Your task to perform on an android device: check the backup settings in the google photos Image 0: 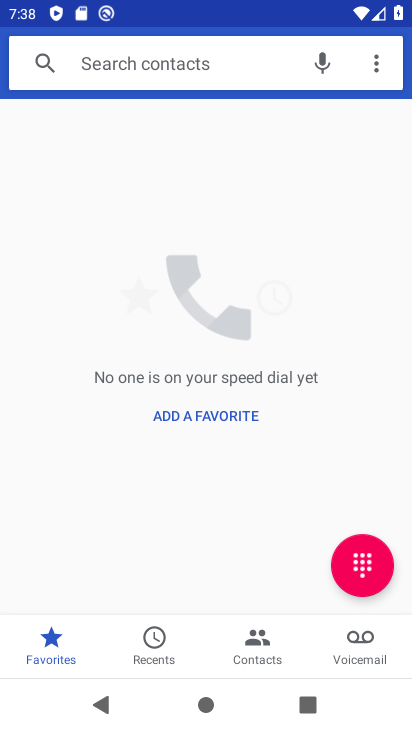
Step 0: press home button
Your task to perform on an android device: check the backup settings in the google photos Image 1: 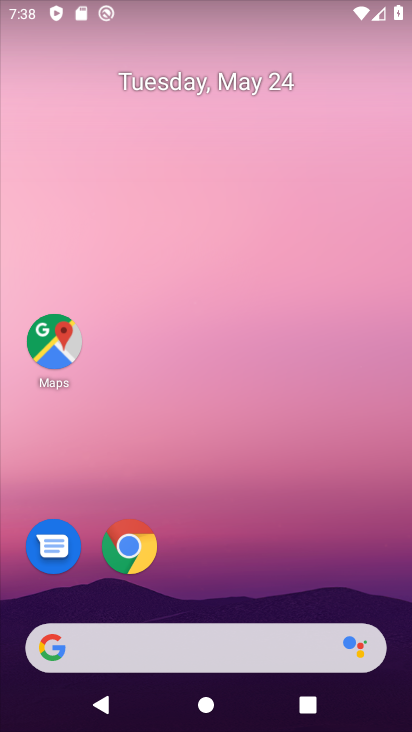
Step 1: drag from (300, 553) to (325, 11)
Your task to perform on an android device: check the backup settings in the google photos Image 2: 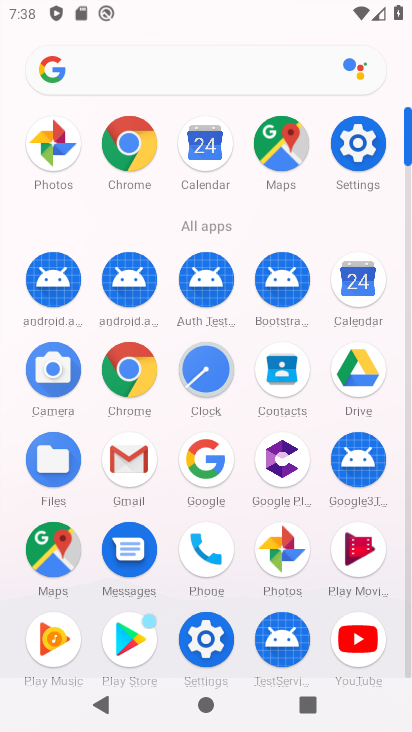
Step 2: click (57, 151)
Your task to perform on an android device: check the backup settings in the google photos Image 3: 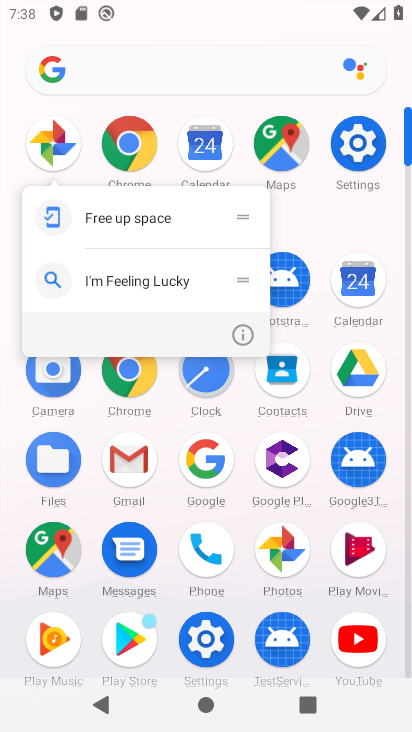
Step 3: click (57, 151)
Your task to perform on an android device: check the backup settings in the google photos Image 4: 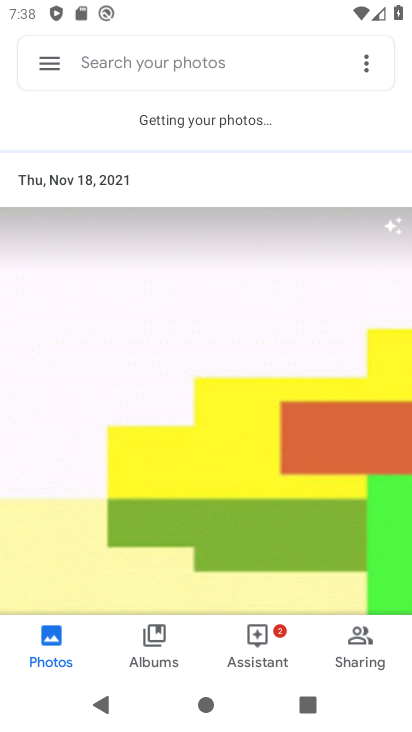
Step 4: click (48, 59)
Your task to perform on an android device: check the backup settings in the google photos Image 5: 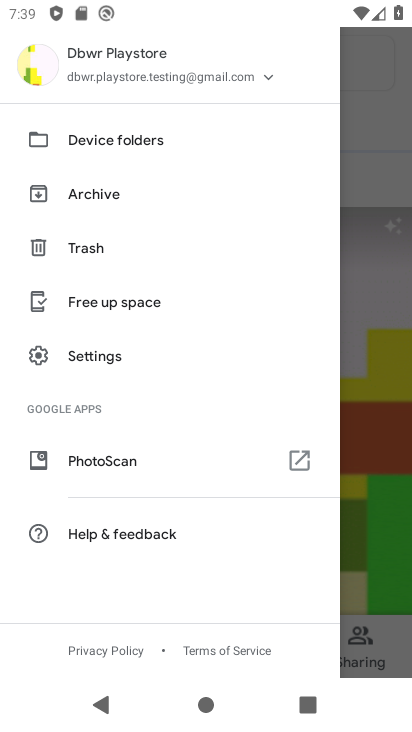
Step 5: click (101, 352)
Your task to perform on an android device: check the backup settings in the google photos Image 6: 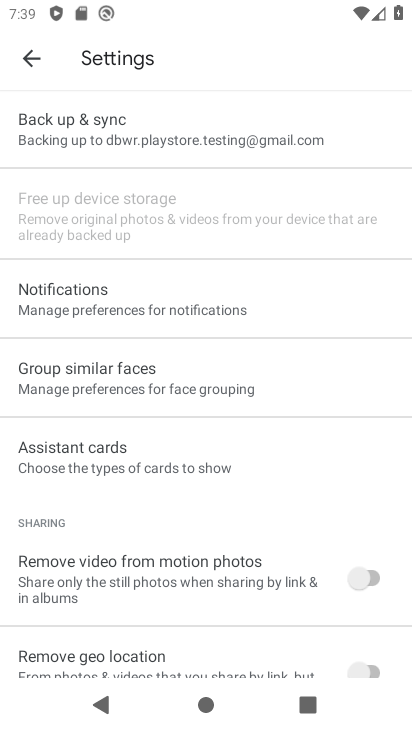
Step 6: click (120, 109)
Your task to perform on an android device: check the backup settings in the google photos Image 7: 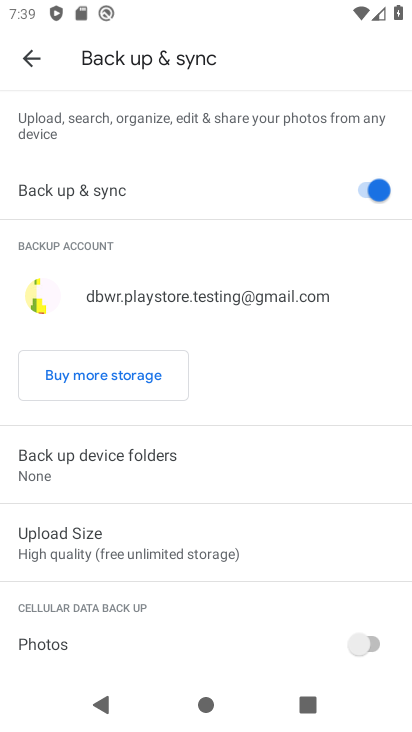
Step 7: task complete